Your task to perform on an android device: open chrome and create a bookmark for the current page Image 0: 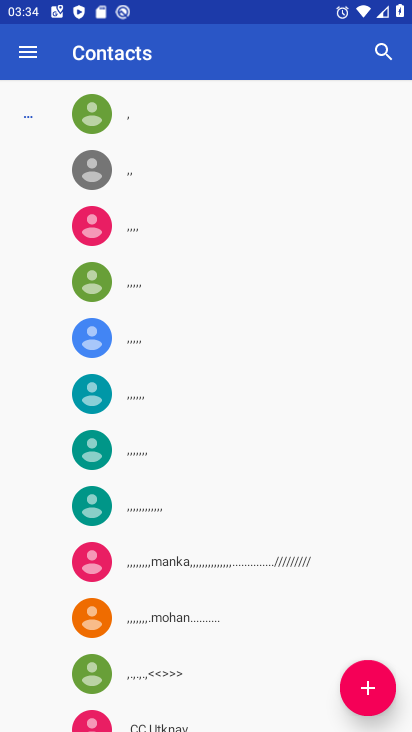
Step 0: press home button
Your task to perform on an android device: open chrome and create a bookmark for the current page Image 1: 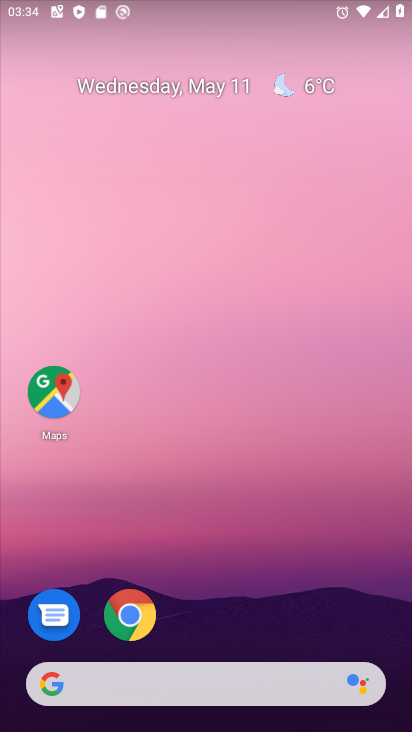
Step 1: drag from (233, 607) to (338, 142)
Your task to perform on an android device: open chrome and create a bookmark for the current page Image 2: 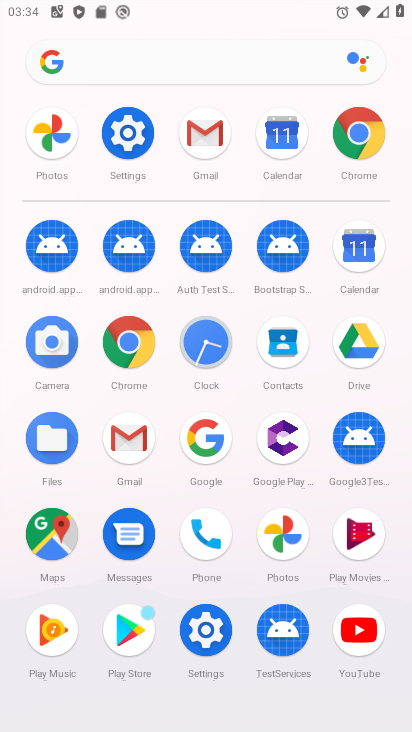
Step 2: click (133, 342)
Your task to perform on an android device: open chrome and create a bookmark for the current page Image 3: 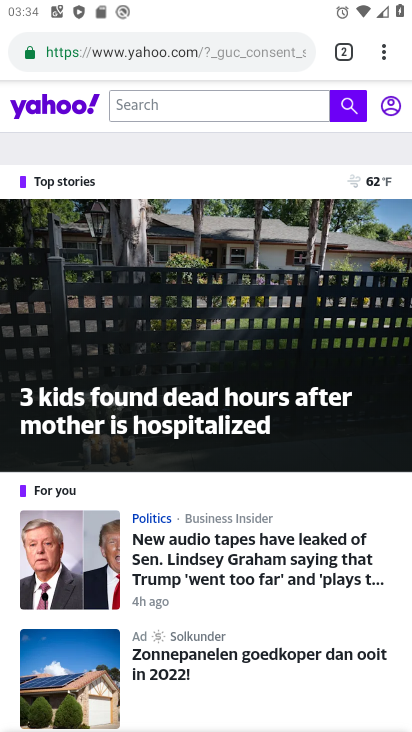
Step 3: task complete